Your task to perform on an android device: set the stopwatch Image 0: 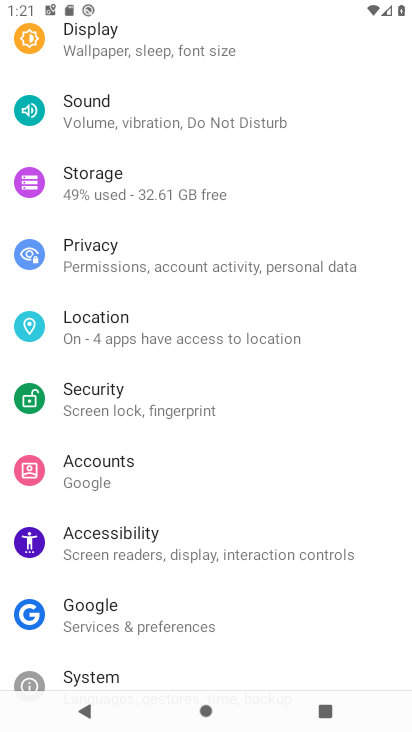
Step 0: press home button
Your task to perform on an android device: set the stopwatch Image 1: 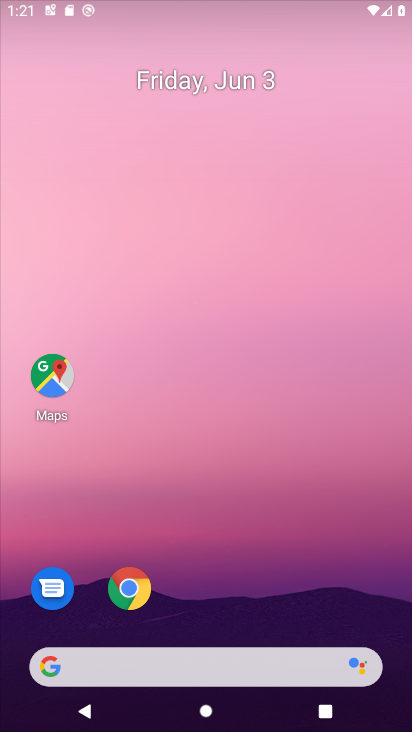
Step 1: drag from (260, 675) to (138, 306)
Your task to perform on an android device: set the stopwatch Image 2: 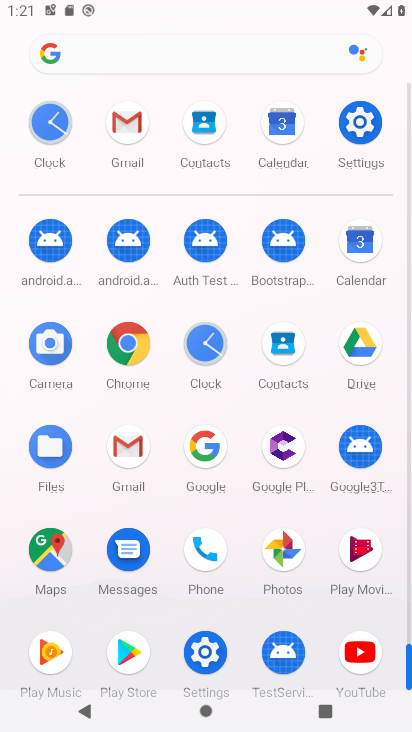
Step 2: click (211, 331)
Your task to perform on an android device: set the stopwatch Image 3: 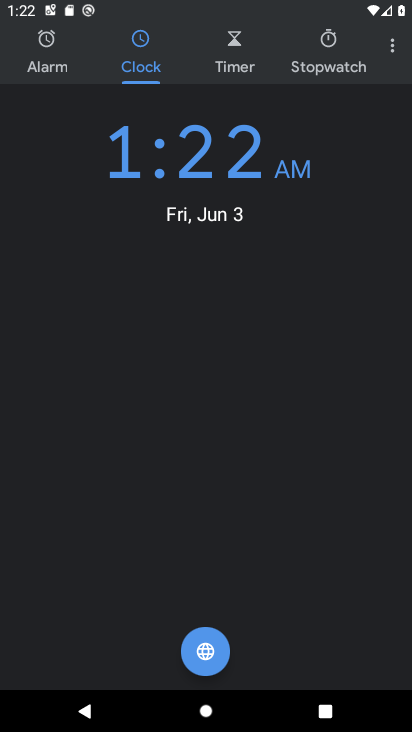
Step 3: click (350, 43)
Your task to perform on an android device: set the stopwatch Image 4: 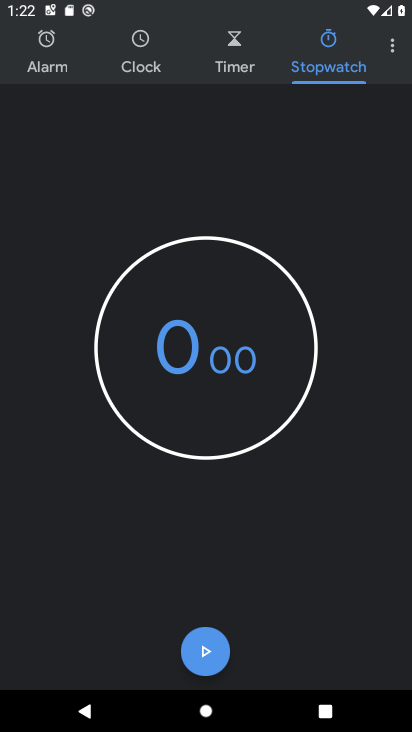
Step 4: task complete